Your task to perform on an android device: Show me recent news Image 0: 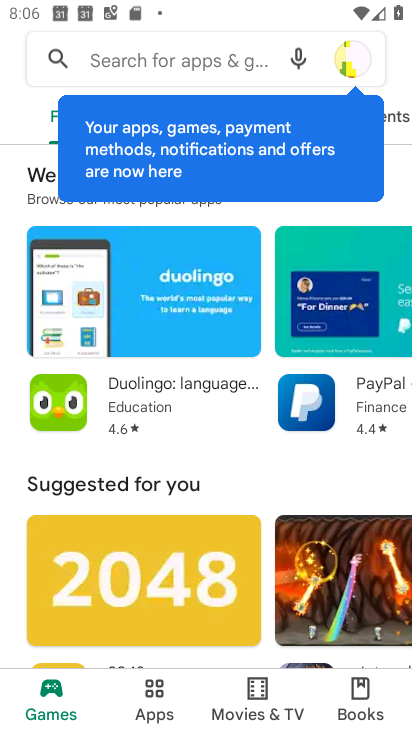
Step 0: press home button
Your task to perform on an android device: Show me recent news Image 1: 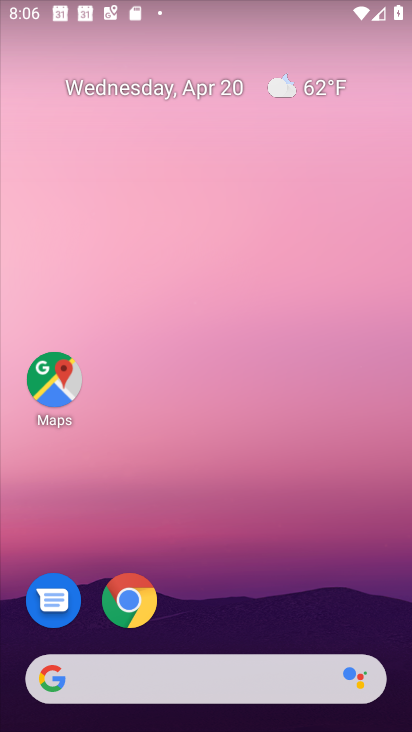
Step 1: drag from (202, 504) to (230, 35)
Your task to perform on an android device: Show me recent news Image 2: 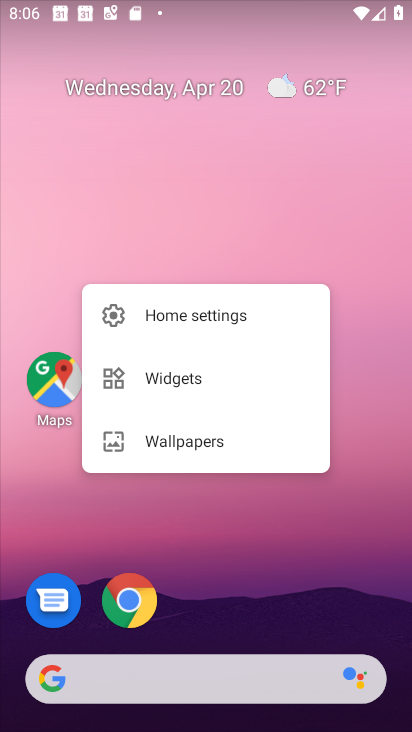
Step 2: click (199, 533)
Your task to perform on an android device: Show me recent news Image 3: 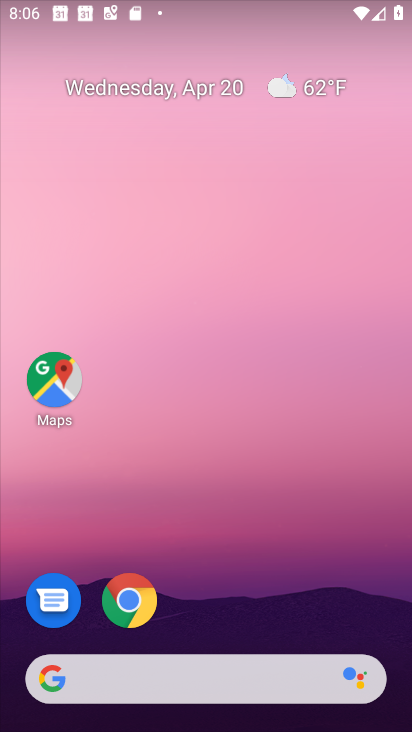
Step 3: drag from (199, 533) to (196, 46)
Your task to perform on an android device: Show me recent news Image 4: 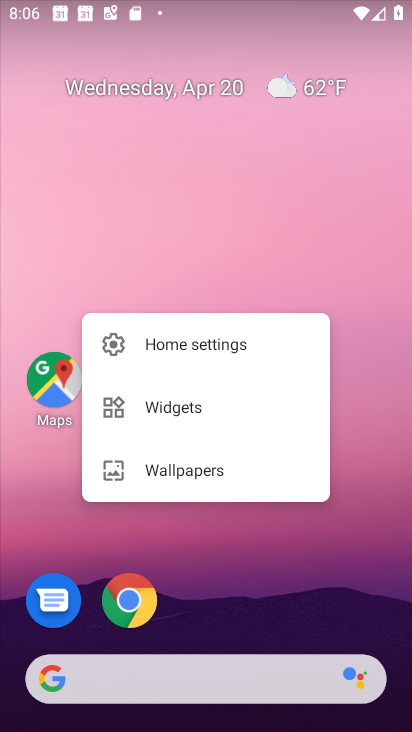
Step 4: click (210, 567)
Your task to perform on an android device: Show me recent news Image 5: 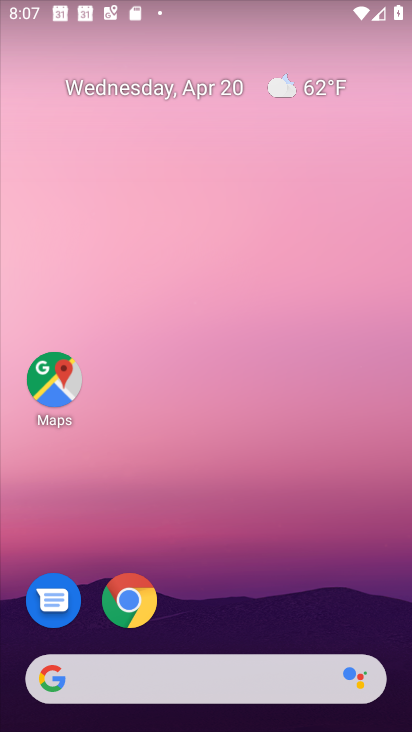
Step 5: drag from (236, 586) to (224, 98)
Your task to perform on an android device: Show me recent news Image 6: 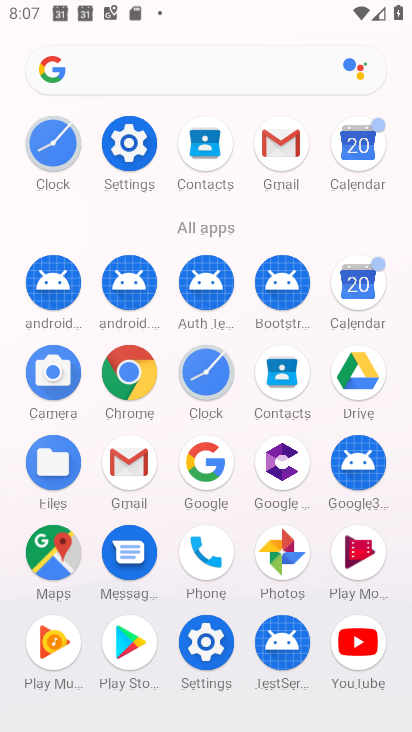
Step 6: click (204, 464)
Your task to perform on an android device: Show me recent news Image 7: 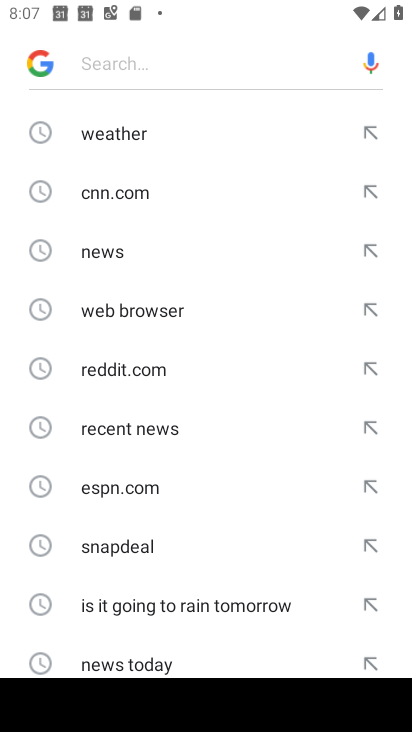
Step 7: click (173, 253)
Your task to perform on an android device: Show me recent news Image 8: 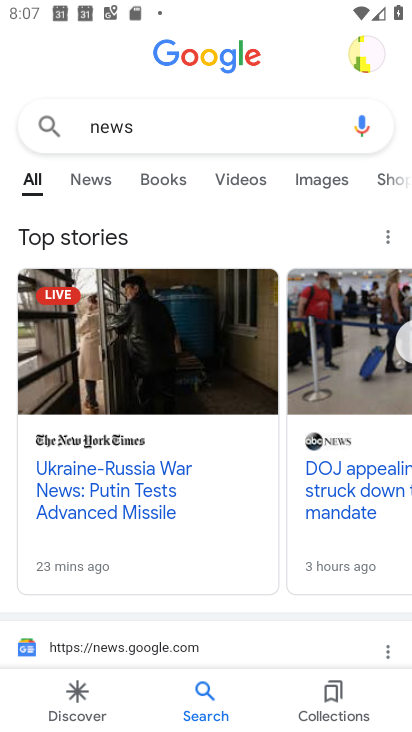
Step 8: click (104, 172)
Your task to perform on an android device: Show me recent news Image 9: 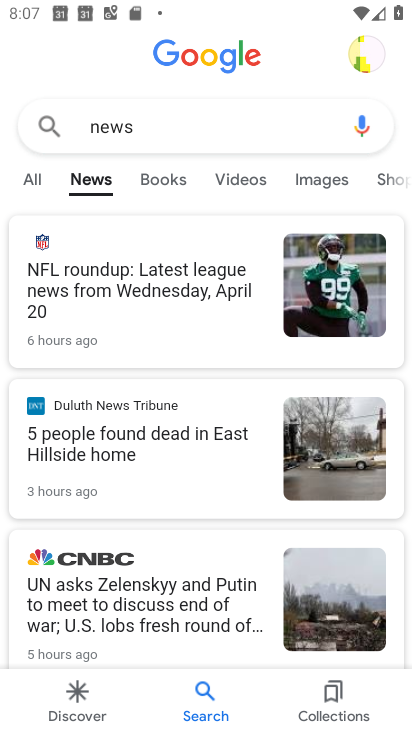
Step 9: task complete